Your task to perform on an android device: all mails in gmail Image 0: 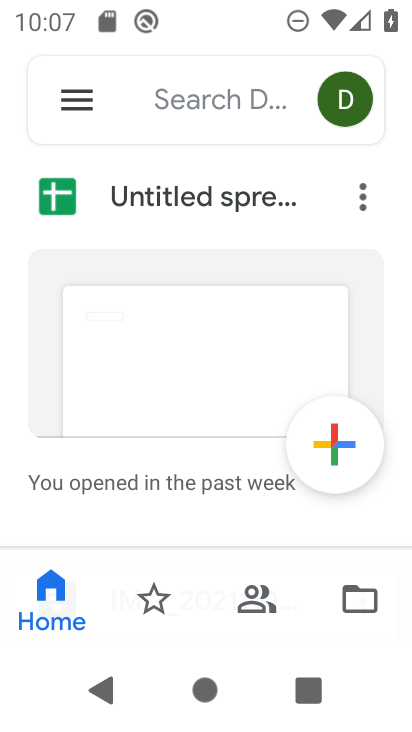
Step 0: press home button
Your task to perform on an android device: all mails in gmail Image 1: 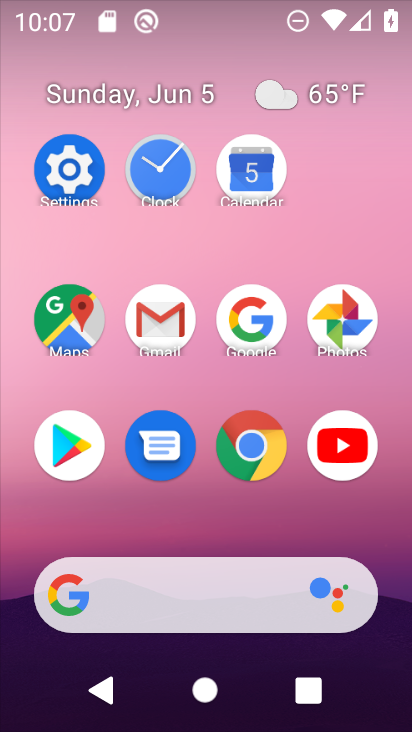
Step 1: click (145, 305)
Your task to perform on an android device: all mails in gmail Image 2: 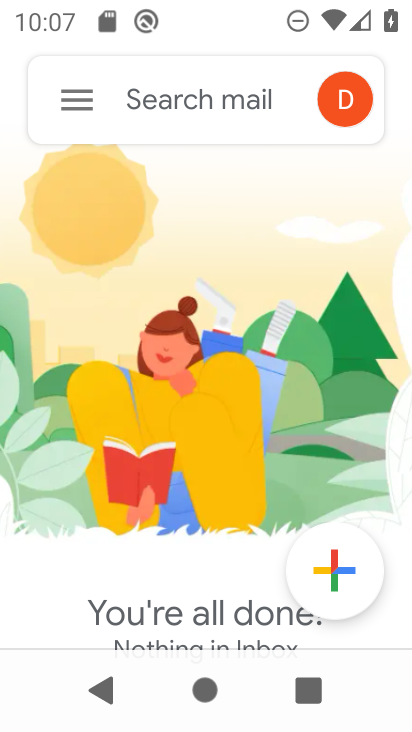
Step 2: click (62, 92)
Your task to perform on an android device: all mails in gmail Image 3: 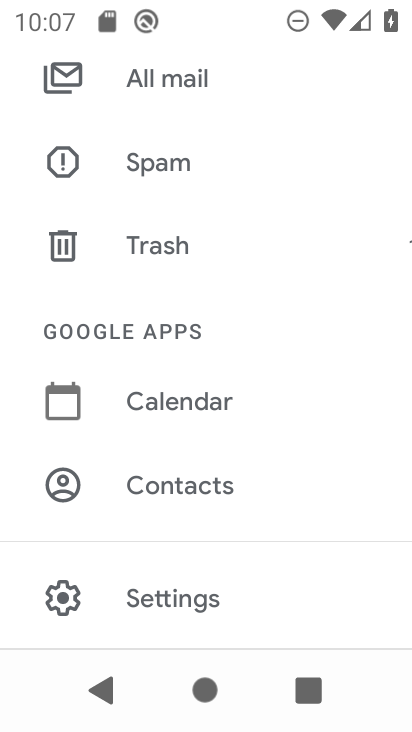
Step 3: click (150, 74)
Your task to perform on an android device: all mails in gmail Image 4: 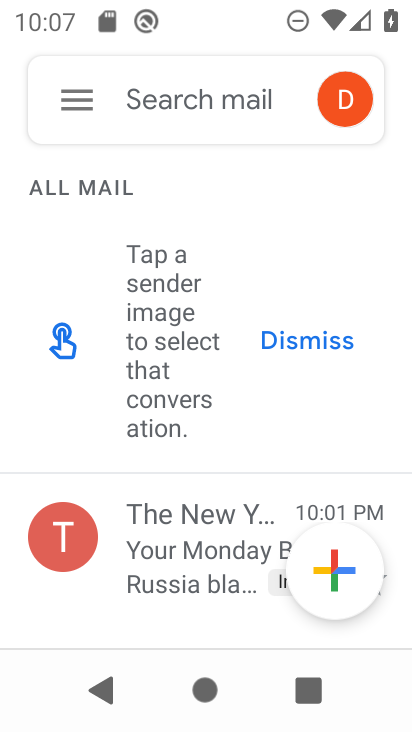
Step 4: task complete